Your task to perform on an android device: visit the assistant section in the google photos Image 0: 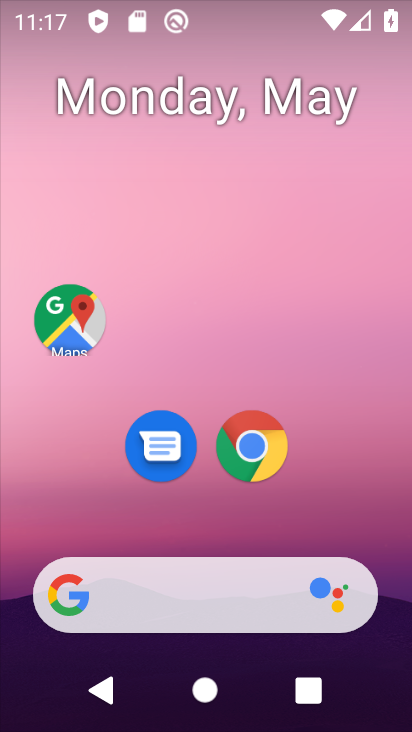
Step 0: drag from (311, 316) to (246, 74)
Your task to perform on an android device: visit the assistant section in the google photos Image 1: 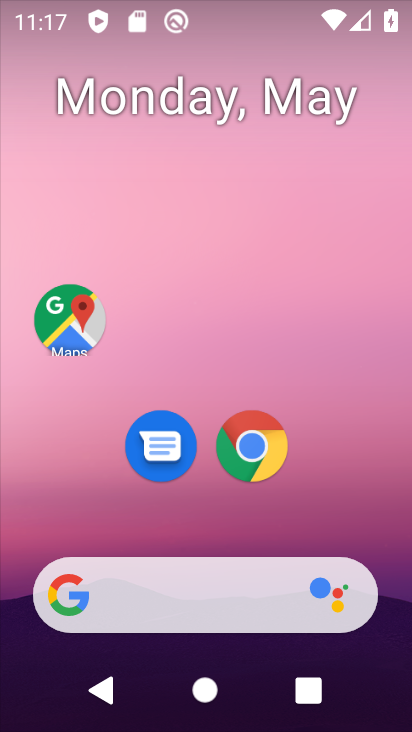
Step 1: drag from (211, 508) to (179, 103)
Your task to perform on an android device: visit the assistant section in the google photos Image 2: 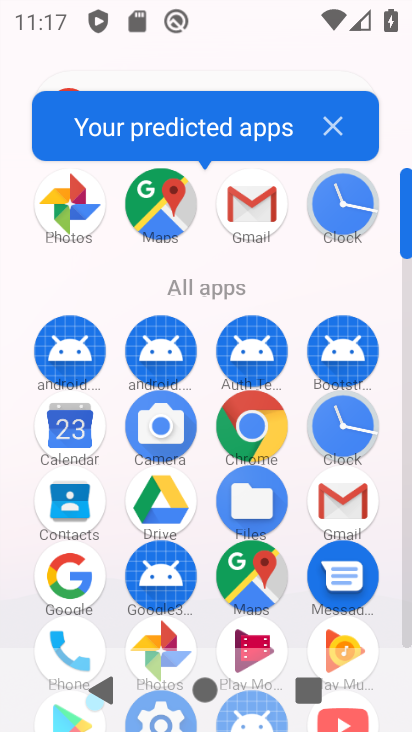
Step 2: click (60, 191)
Your task to perform on an android device: visit the assistant section in the google photos Image 3: 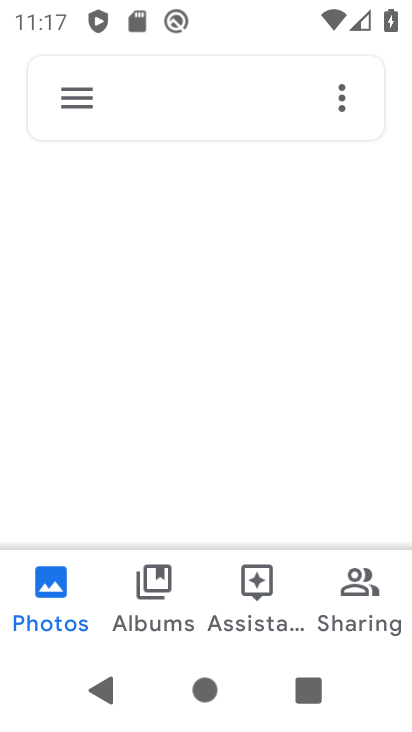
Step 3: click (249, 586)
Your task to perform on an android device: visit the assistant section in the google photos Image 4: 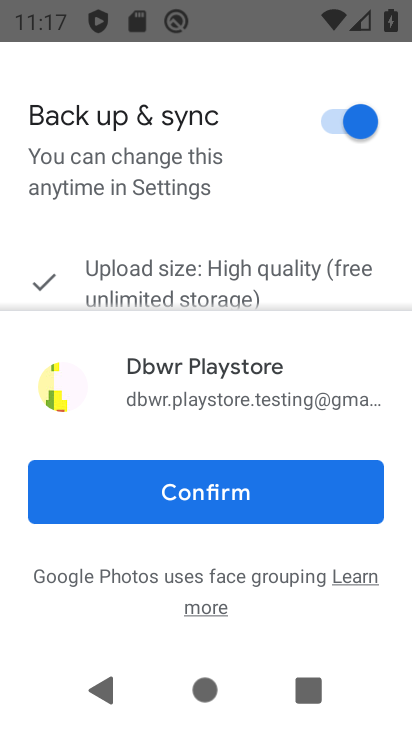
Step 4: click (213, 465)
Your task to perform on an android device: visit the assistant section in the google photos Image 5: 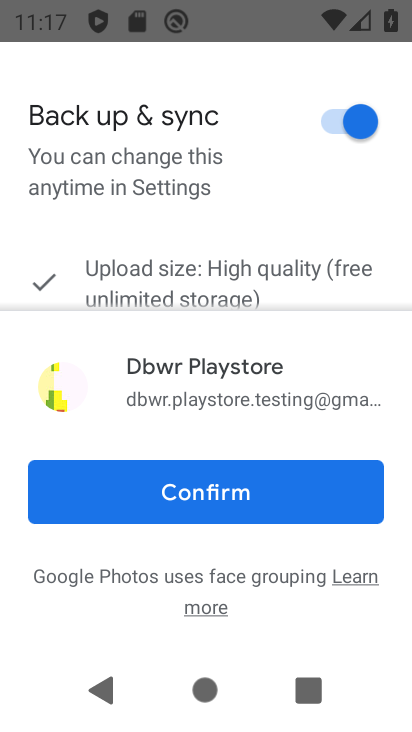
Step 5: click (218, 513)
Your task to perform on an android device: visit the assistant section in the google photos Image 6: 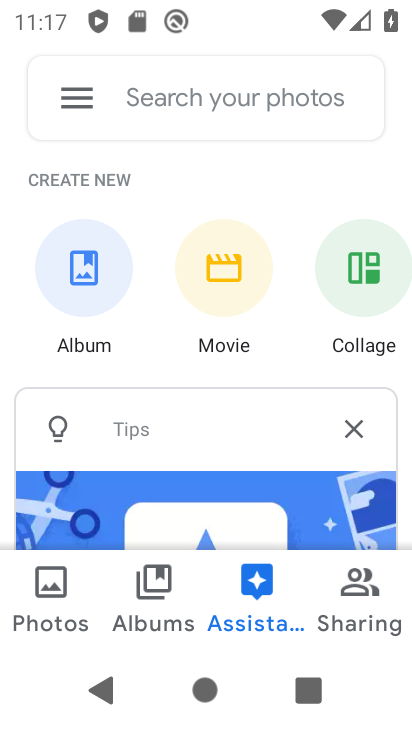
Step 6: click (355, 432)
Your task to perform on an android device: visit the assistant section in the google photos Image 7: 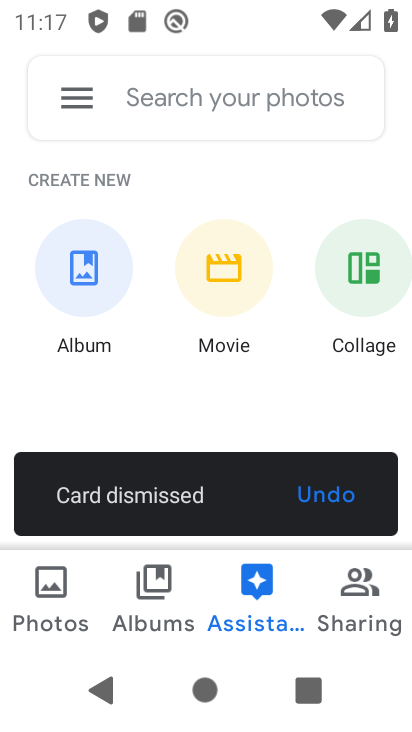
Step 7: task complete